Your task to perform on an android device: check the backup settings in the google photos Image 0: 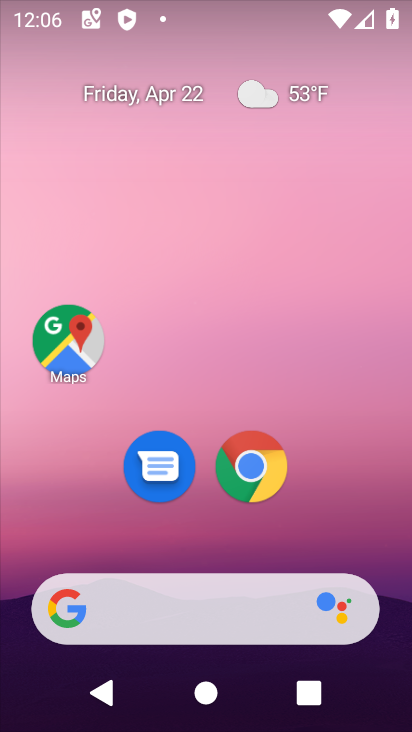
Step 0: drag from (298, 498) to (276, 21)
Your task to perform on an android device: check the backup settings in the google photos Image 1: 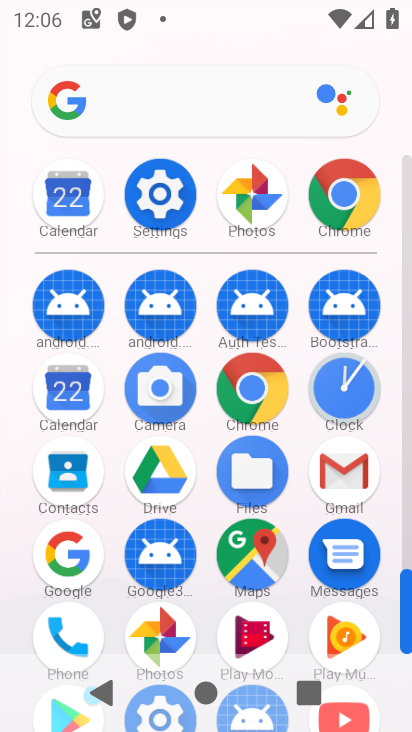
Step 1: drag from (1, 629) to (14, 273)
Your task to perform on an android device: check the backup settings in the google photos Image 2: 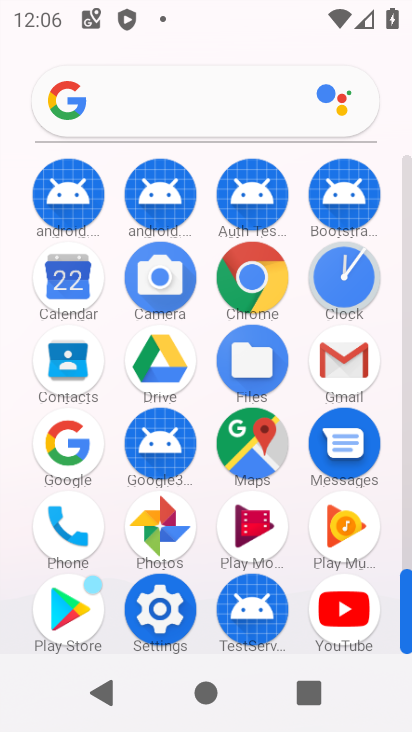
Step 2: click (163, 519)
Your task to perform on an android device: check the backup settings in the google photos Image 3: 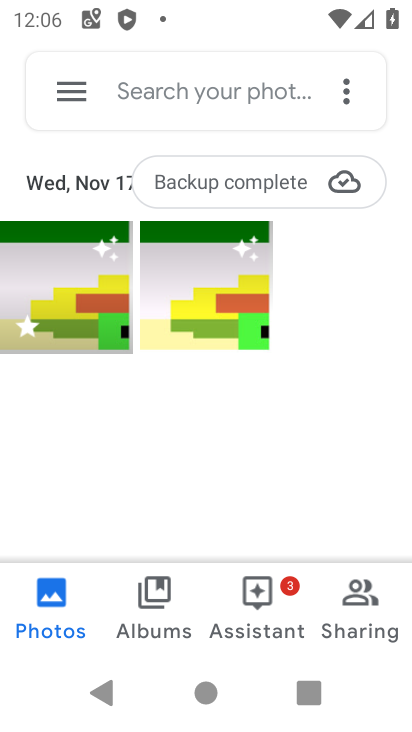
Step 3: click (55, 85)
Your task to perform on an android device: check the backup settings in the google photos Image 4: 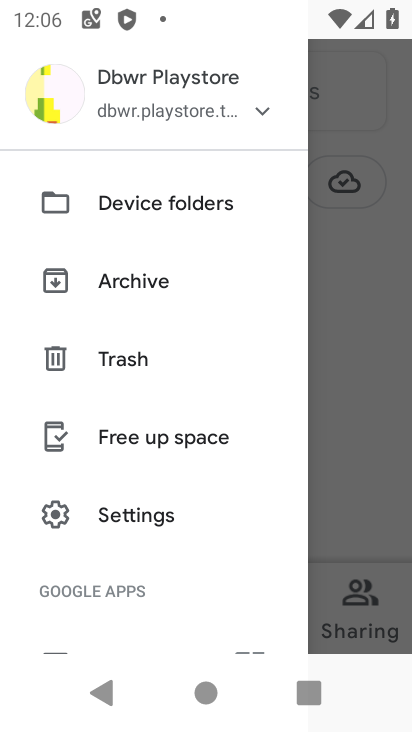
Step 4: click (139, 500)
Your task to perform on an android device: check the backup settings in the google photos Image 5: 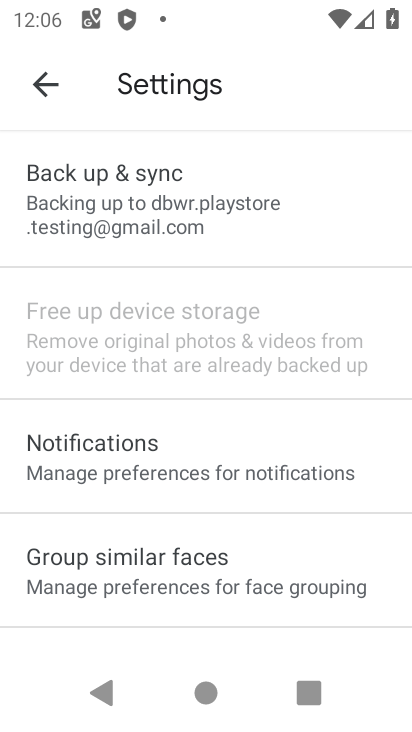
Step 5: click (195, 193)
Your task to perform on an android device: check the backup settings in the google photos Image 6: 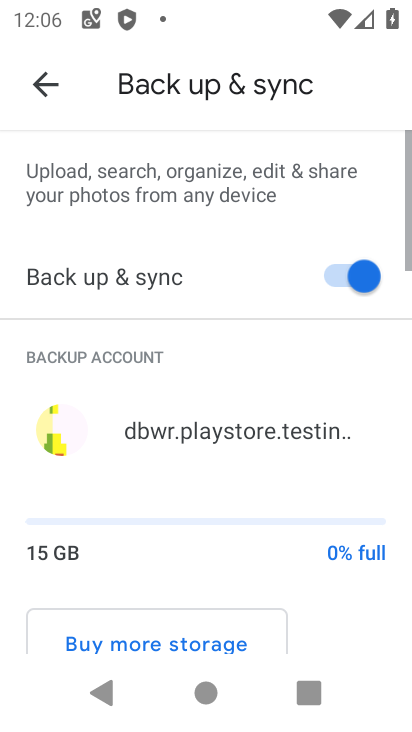
Step 6: task complete